Your task to perform on an android device: toggle improve location accuracy Image 0: 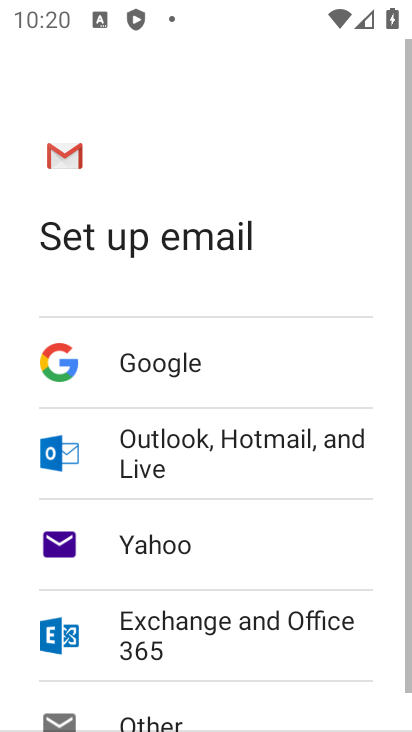
Step 0: press home button
Your task to perform on an android device: toggle improve location accuracy Image 1: 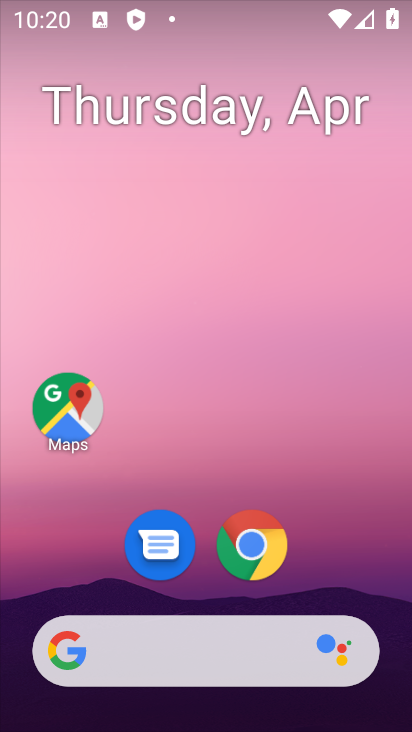
Step 1: drag from (42, 575) to (233, 222)
Your task to perform on an android device: toggle improve location accuracy Image 2: 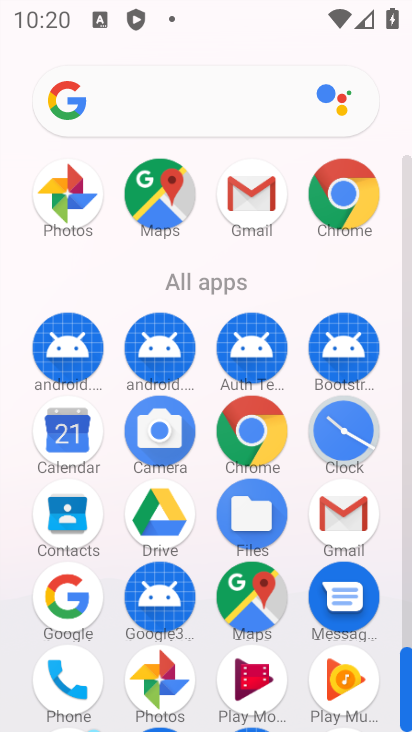
Step 2: drag from (132, 632) to (273, 380)
Your task to perform on an android device: toggle improve location accuracy Image 3: 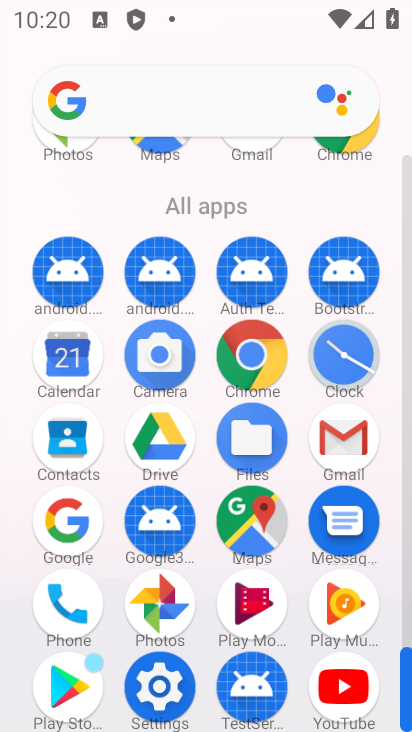
Step 3: click (138, 692)
Your task to perform on an android device: toggle improve location accuracy Image 4: 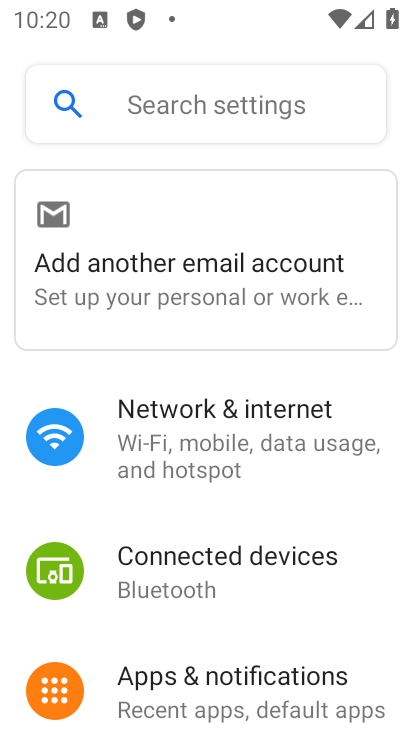
Step 4: drag from (131, 676) to (274, 277)
Your task to perform on an android device: toggle improve location accuracy Image 5: 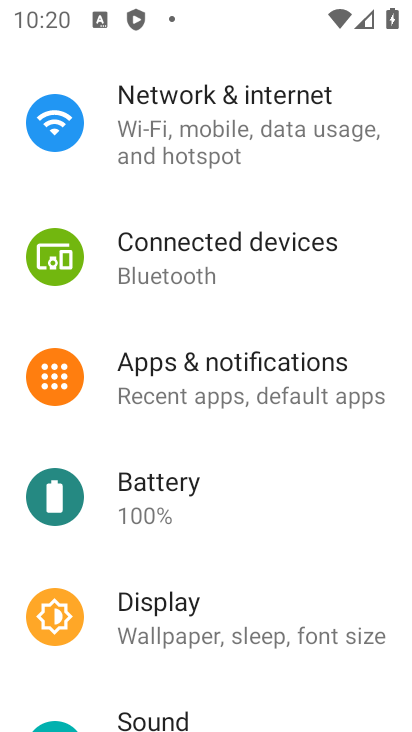
Step 5: drag from (136, 657) to (284, 321)
Your task to perform on an android device: toggle improve location accuracy Image 6: 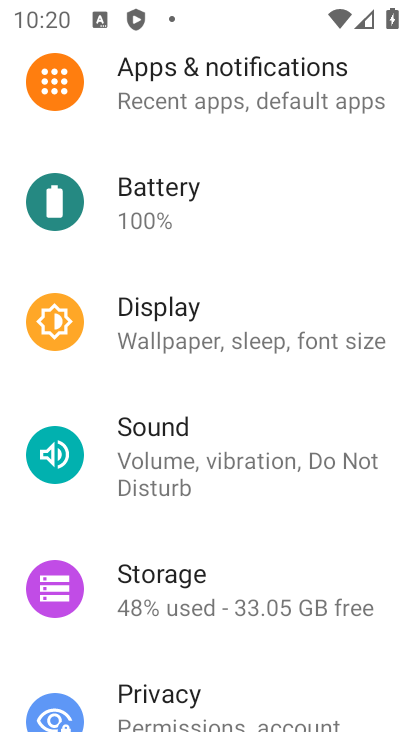
Step 6: drag from (147, 666) to (279, 350)
Your task to perform on an android device: toggle improve location accuracy Image 7: 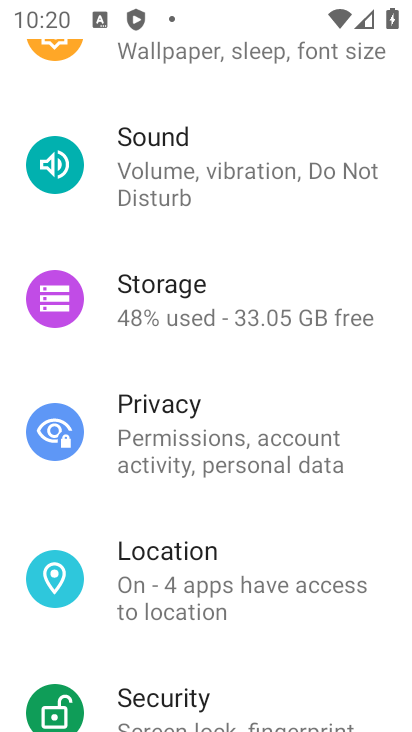
Step 7: click (188, 561)
Your task to perform on an android device: toggle improve location accuracy Image 8: 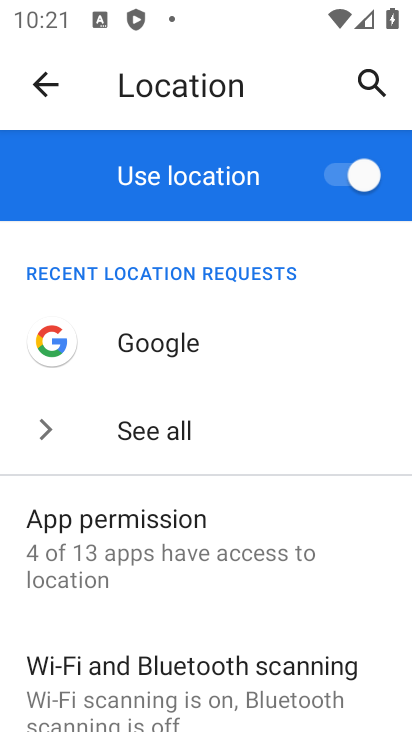
Step 8: drag from (141, 660) to (271, 351)
Your task to perform on an android device: toggle improve location accuracy Image 9: 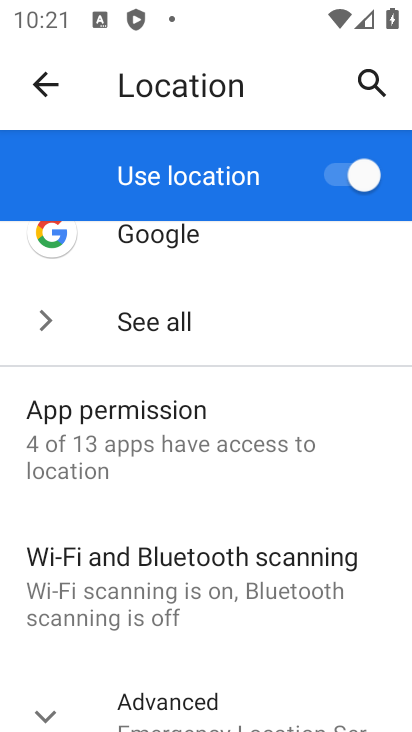
Step 9: drag from (219, 479) to (283, 284)
Your task to perform on an android device: toggle improve location accuracy Image 10: 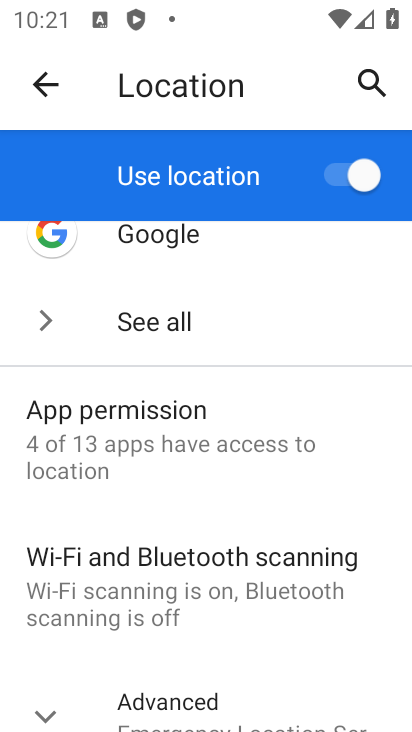
Step 10: drag from (57, 647) to (257, 374)
Your task to perform on an android device: toggle improve location accuracy Image 11: 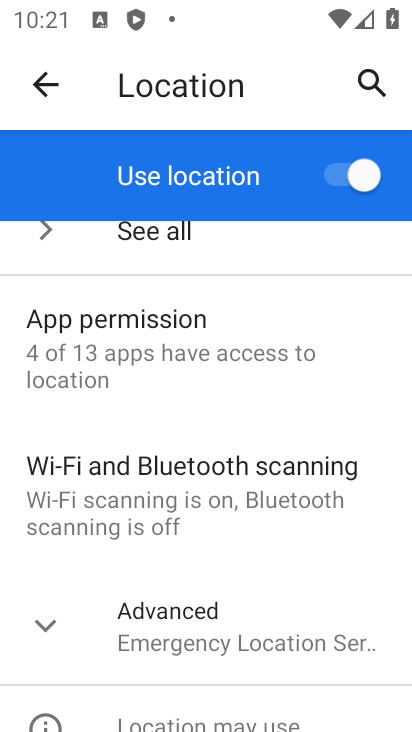
Step 11: click (173, 628)
Your task to perform on an android device: toggle improve location accuracy Image 12: 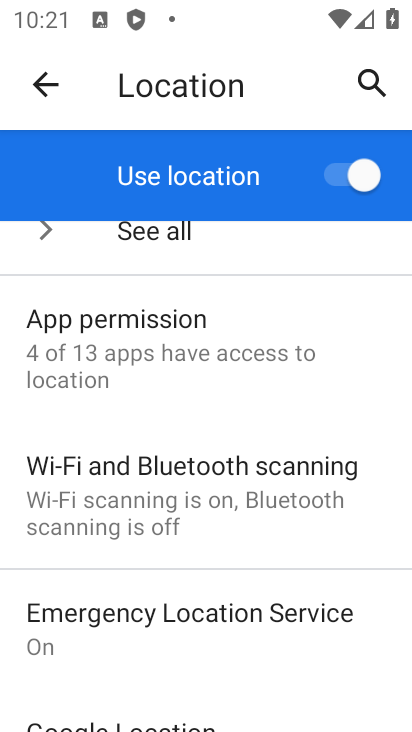
Step 12: drag from (69, 645) to (219, 377)
Your task to perform on an android device: toggle improve location accuracy Image 13: 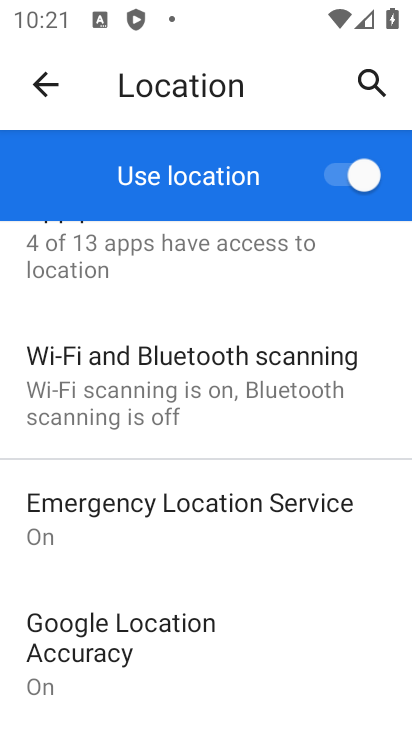
Step 13: drag from (88, 641) to (231, 319)
Your task to perform on an android device: toggle improve location accuracy Image 14: 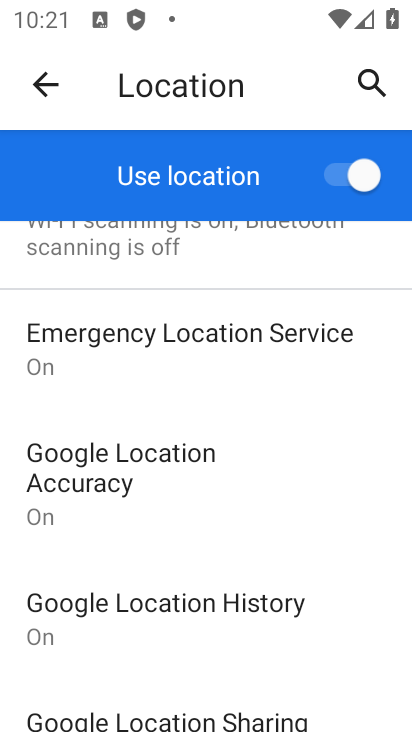
Step 14: click (123, 487)
Your task to perform on an android device: toggle improve location accuracy Image 15: 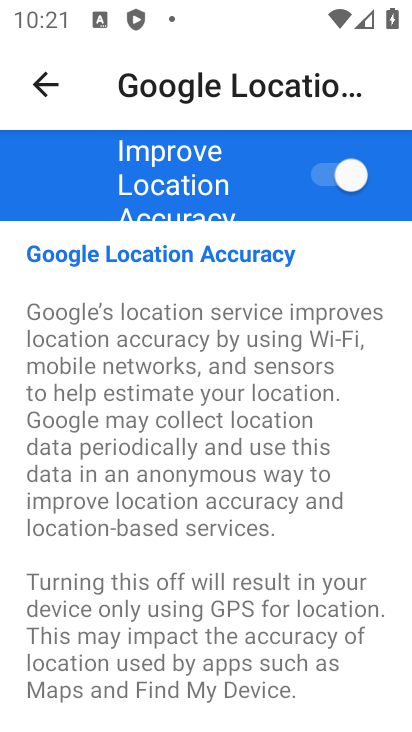
Step 15: click (355, 181)
Your task to perform on an android device: toggle improve location accuracy Image 16: 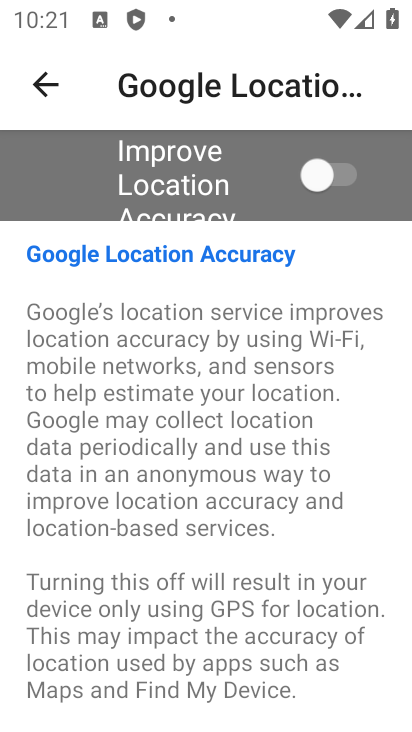
Step 16: task complete